Your task to perform on an android device: Go to Reddit.com Image 0: 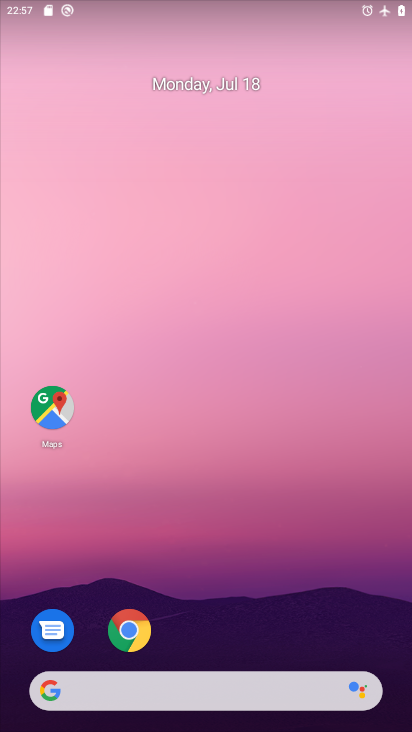
Step 0: click (130, 618)
Your task to perform on an android device: Go to Reddit.com Image 1: 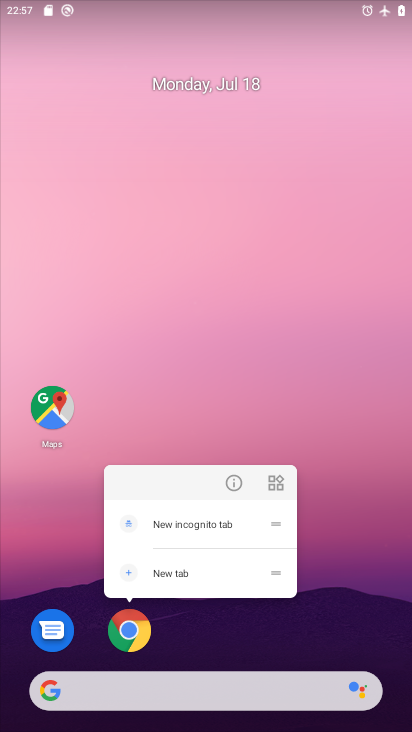
Step 1: click (130, 625)
Your task to perform on an android device: Go to Reddit.com Image 2: 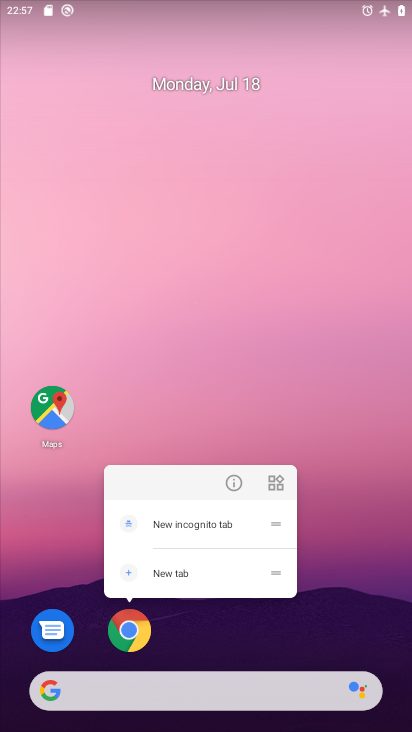
Step 2: click (130, 625)
Your task to perform on an android device: Go to Reddit.com Image 3: 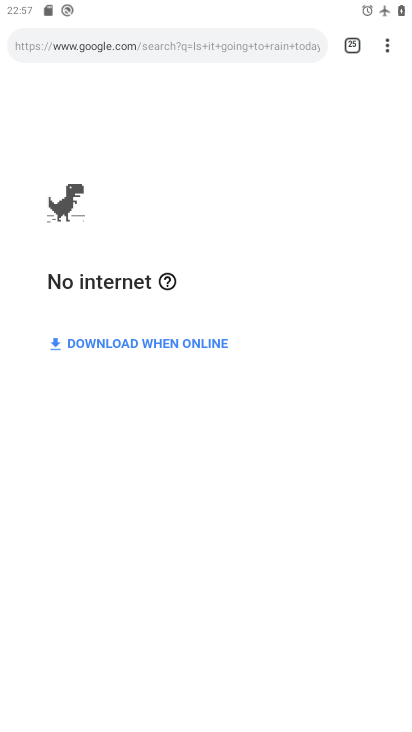
Step 3: click (392, 49)
Your task to perform on an android device: Go to Reddit.com Image 4: 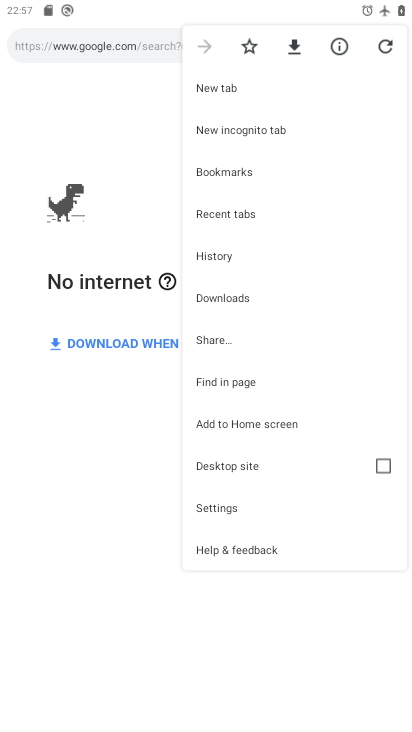
Step 4: click (208, 92)
Your task to perform on an android device: Go to Reddit.com Image 5: 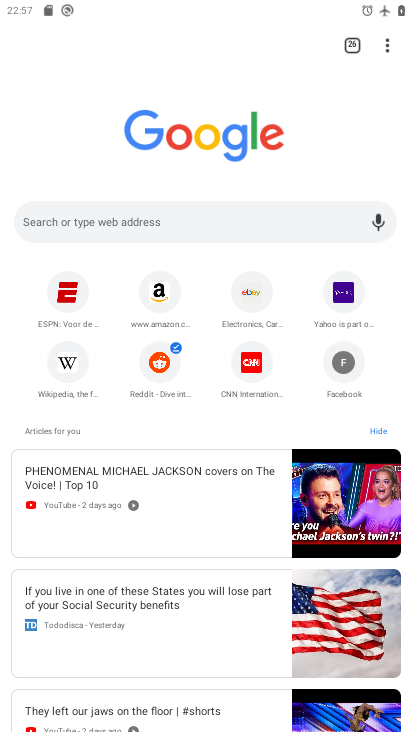
Step 5: click (149, 366)
Your task to perform on an android device: Go to Reddit.com Image 6: 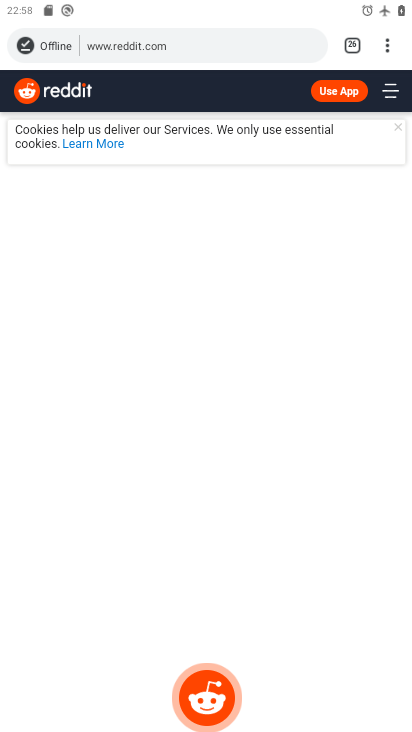
Step 6: task complete